Your task to perform on an android device: Show the shopping cart on walmart. Add amazon basics triple a to the cart on walmart Image 0: 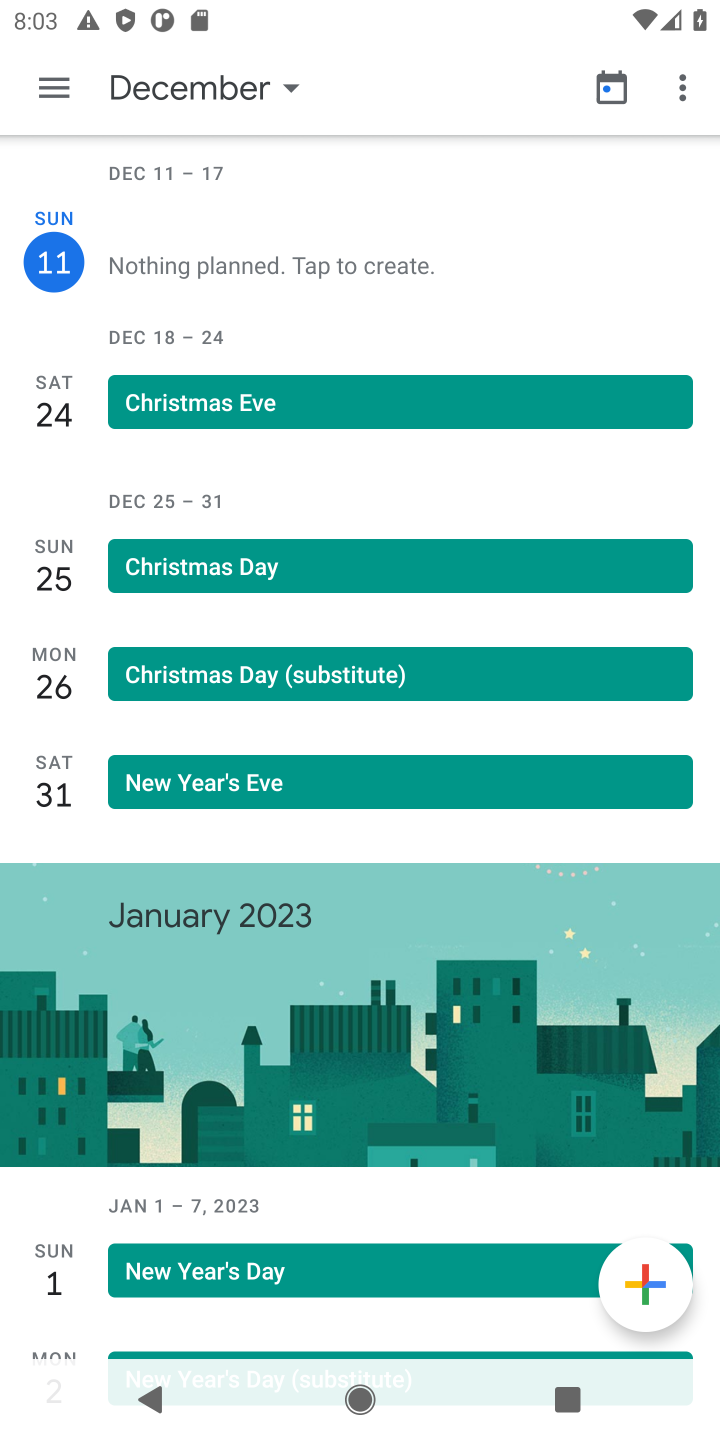
Step 0: press home button
Your task to perform on an android device: Show the shopping cart on walmart. Add amazon basics triple a to the cart on walmart Image 1: 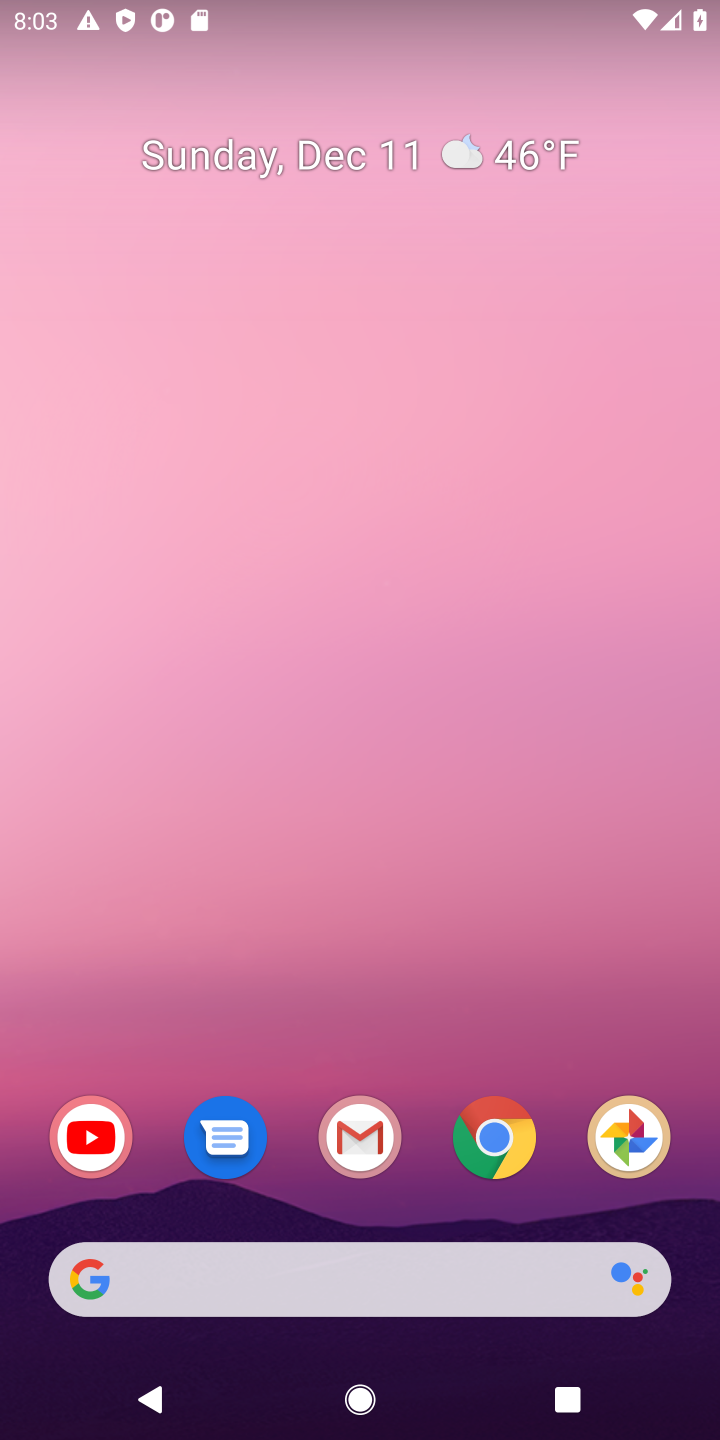
Step 1: click (480, 1155)
Your task to perform on an android device: Show the shopping cart on walmart. Add amazon basics triple a to the cart on walmart Image 2: 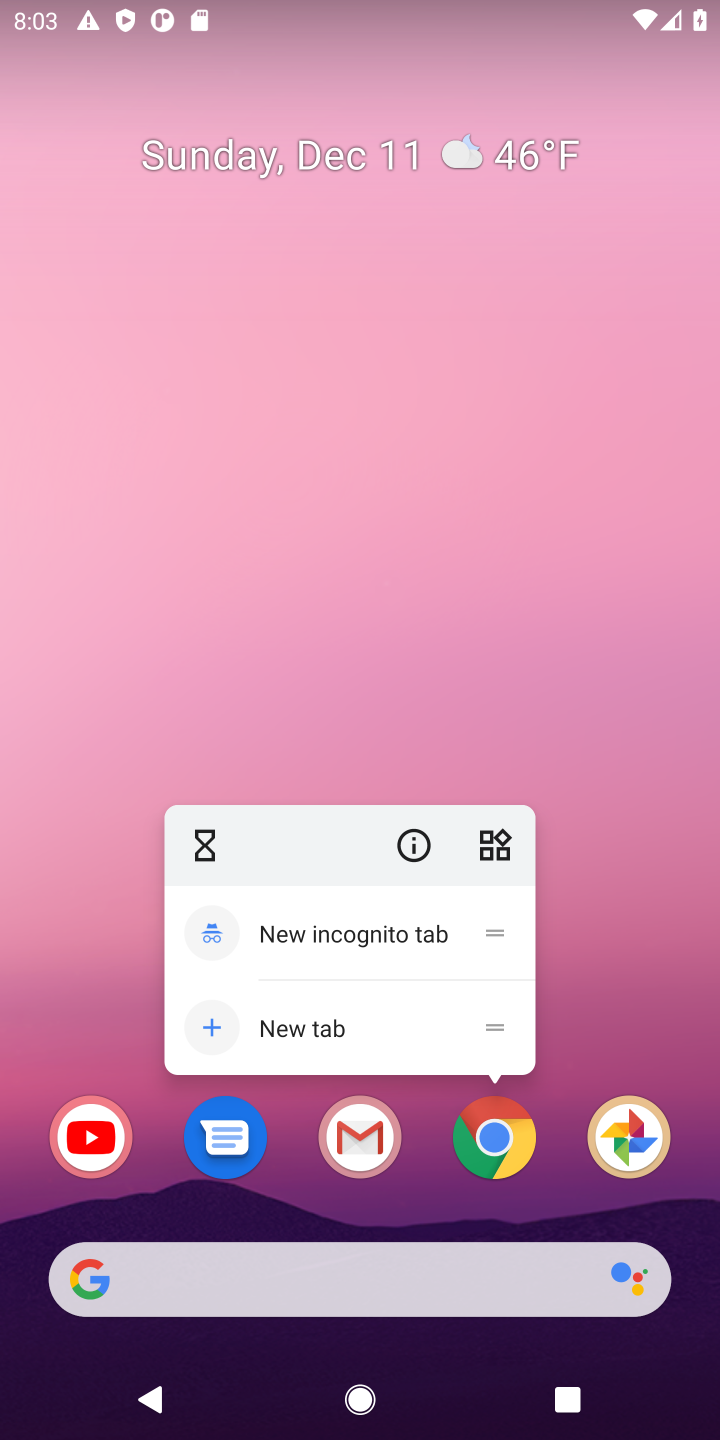
Step 2: click (507, 1127)
Your task to perform on an android device: Show the shopping cart on walmart. Add amazon basics triple a to the cart on walmart Image 3: 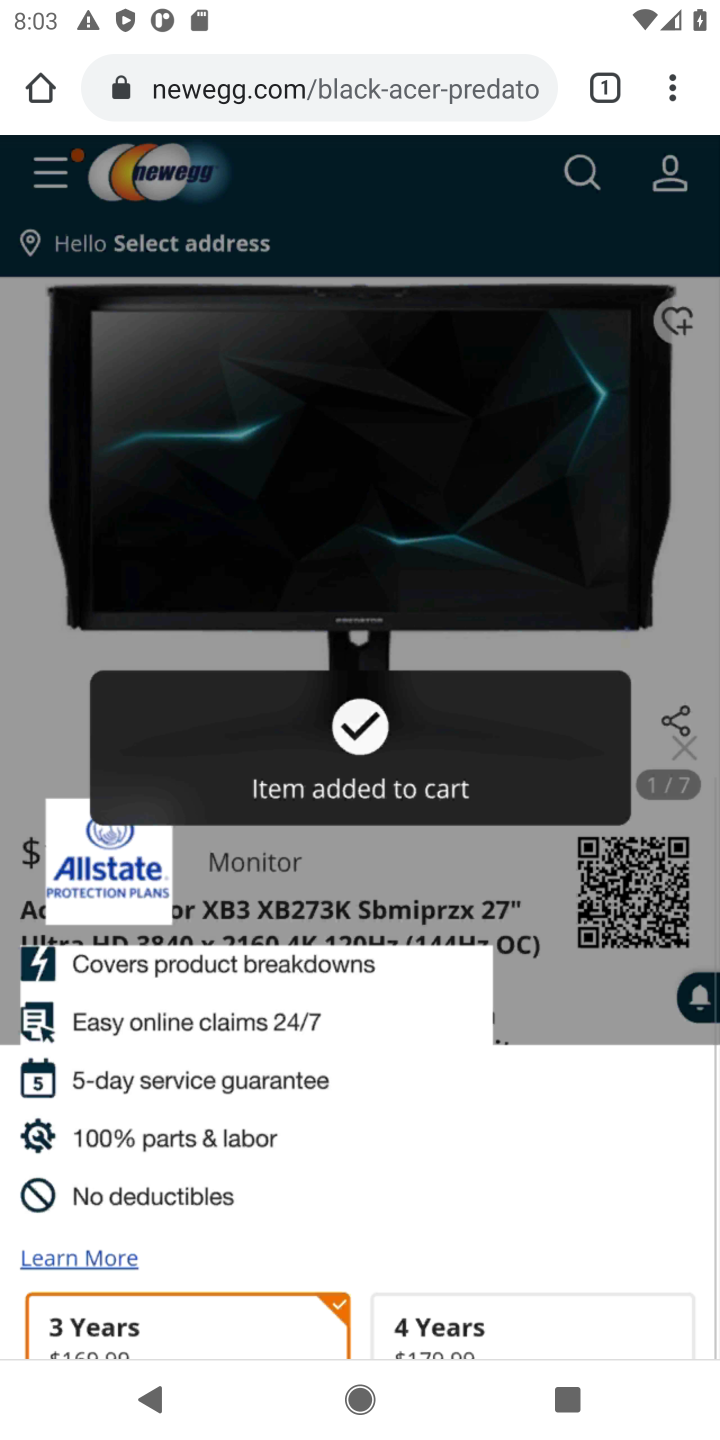
Step 3: click (294, 91)
Your task to perform on an android device: Show the shopping cart on walmart. Add amazon basics triple a to the cart on walmart Image 4: 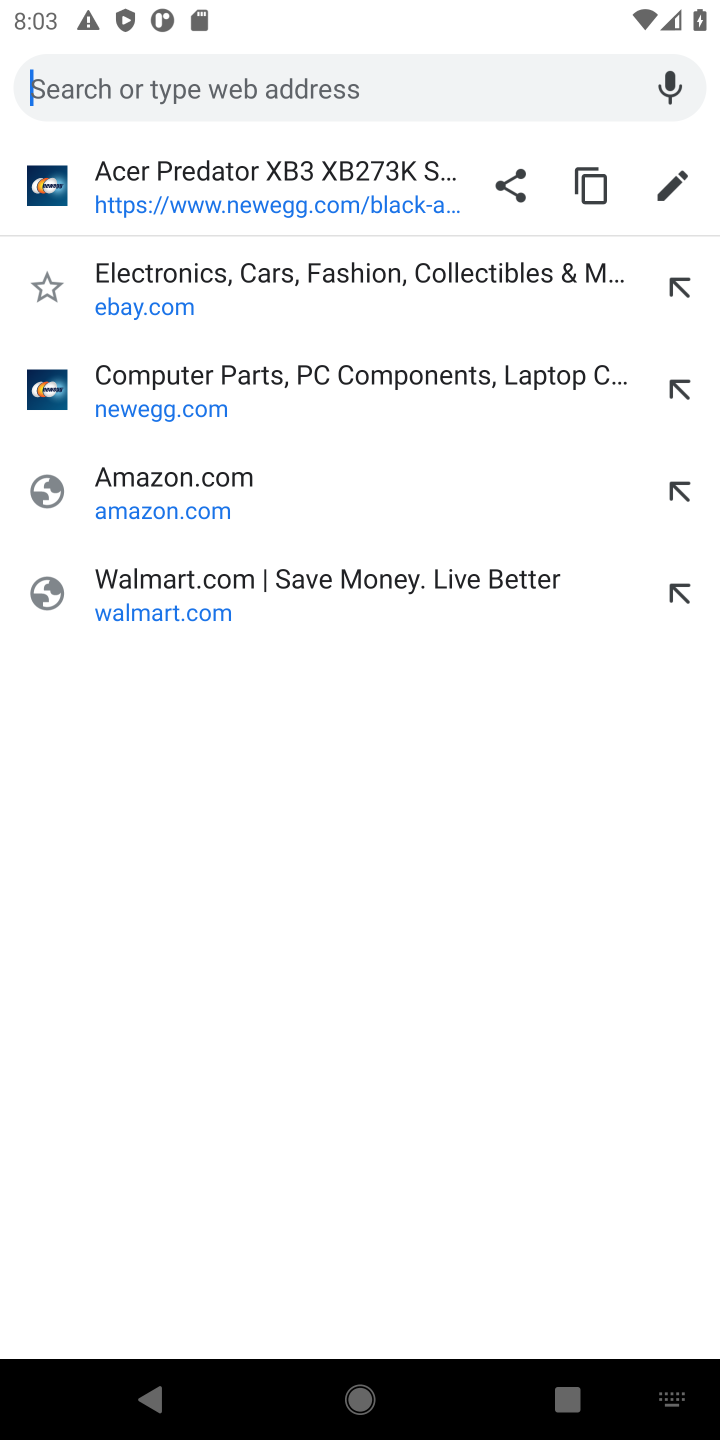
Step 4: click (273, 590)
Your task to perform on an android device: Show the shopping cart on walmart. Add amazon basics triple a to the cart on walmart Image 5: 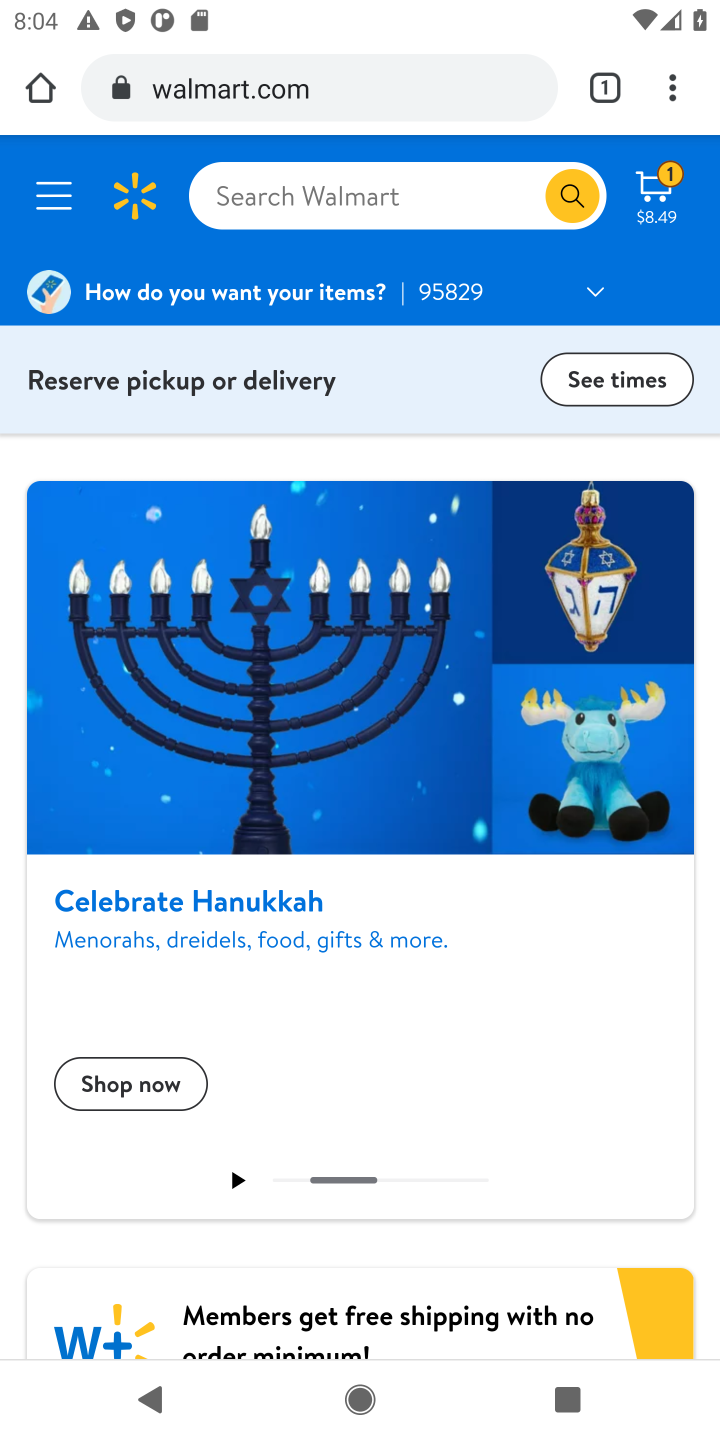
Step 5: click (458, 199)
Your task to perform on an android device: Show the shopping cart on walmart. Add amazon basics triple a to the cart on walmart Image 6: 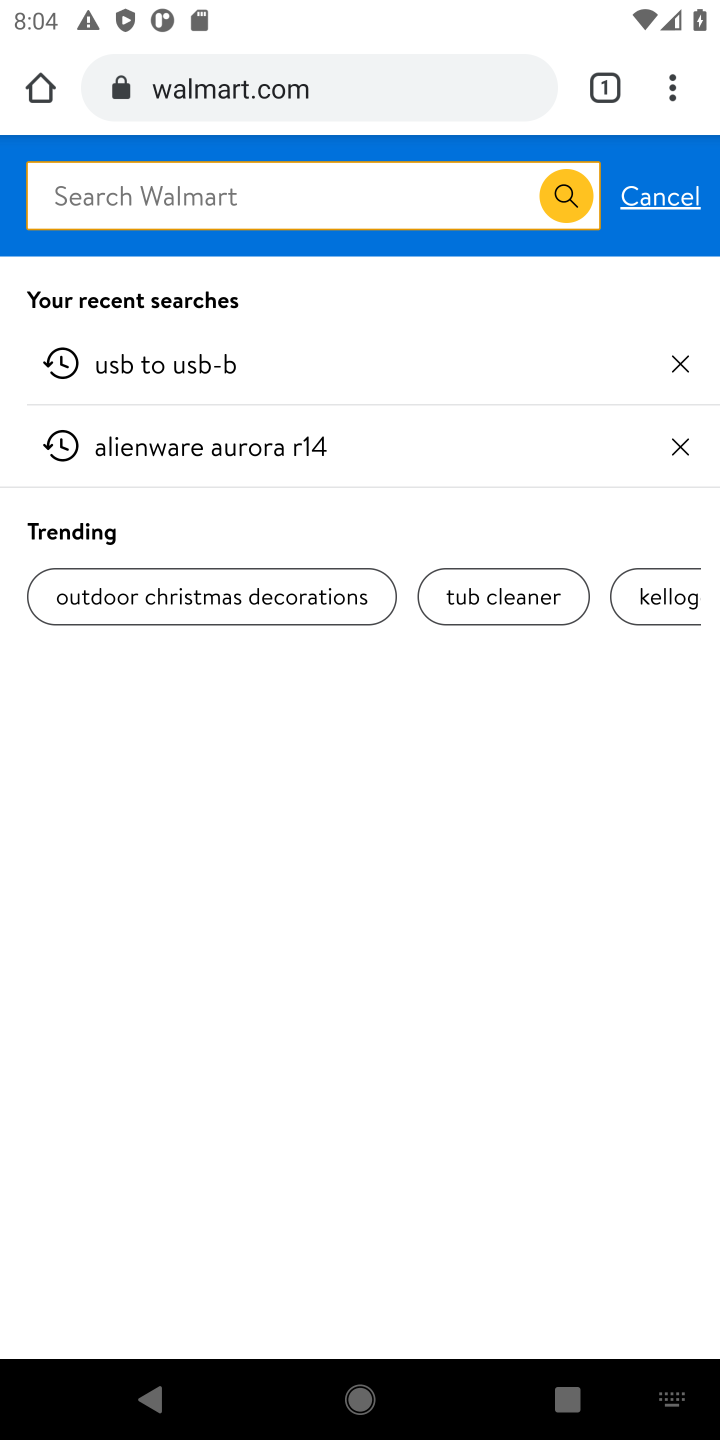
Step 6: type "AMAZON BASICS TRIPLE A"
Your task to perform on an android device: Show the shopping cart on walmart. Add amazon basics triple a to the cart on walmart Image 7: 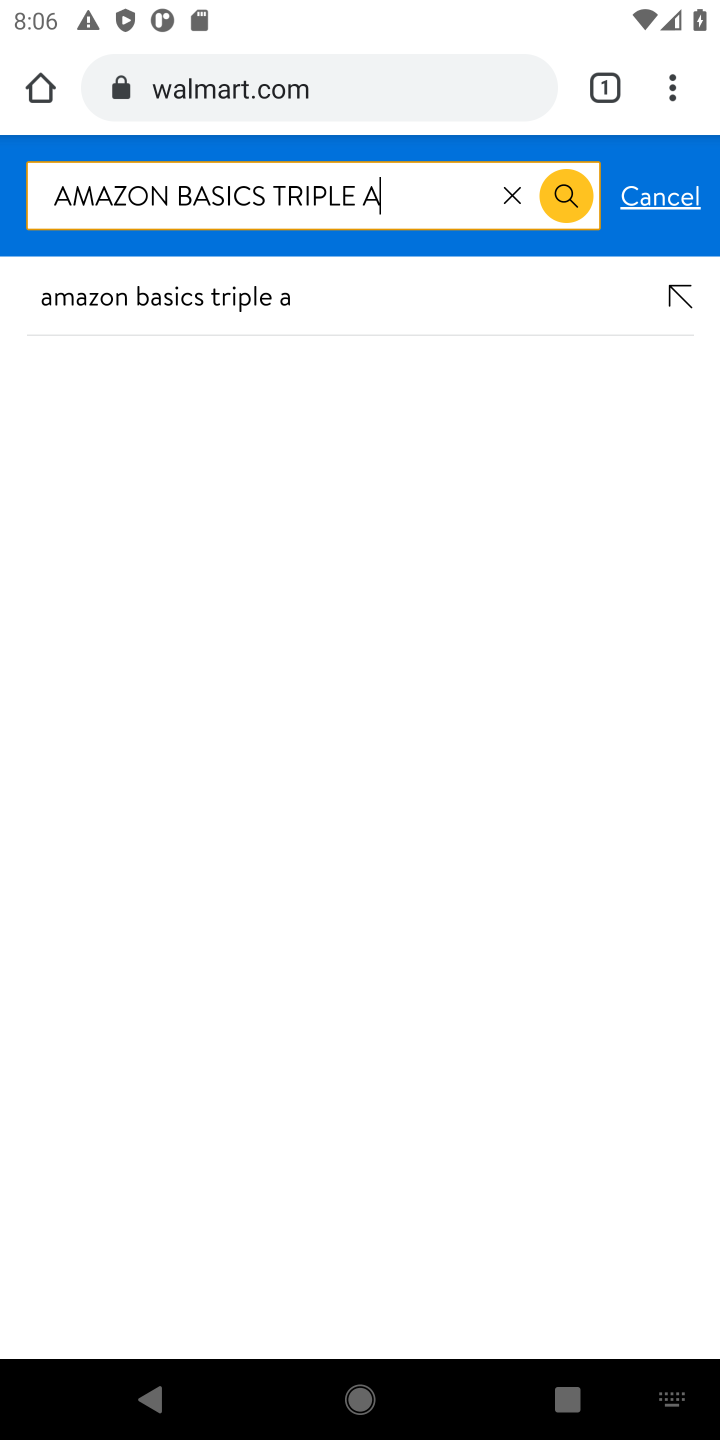
Step 7: click (266, 294)
Your task to perform on an android device: Show the shopping cart on walmart. Add amazon basics triple a to the cart on walmart Image 8: 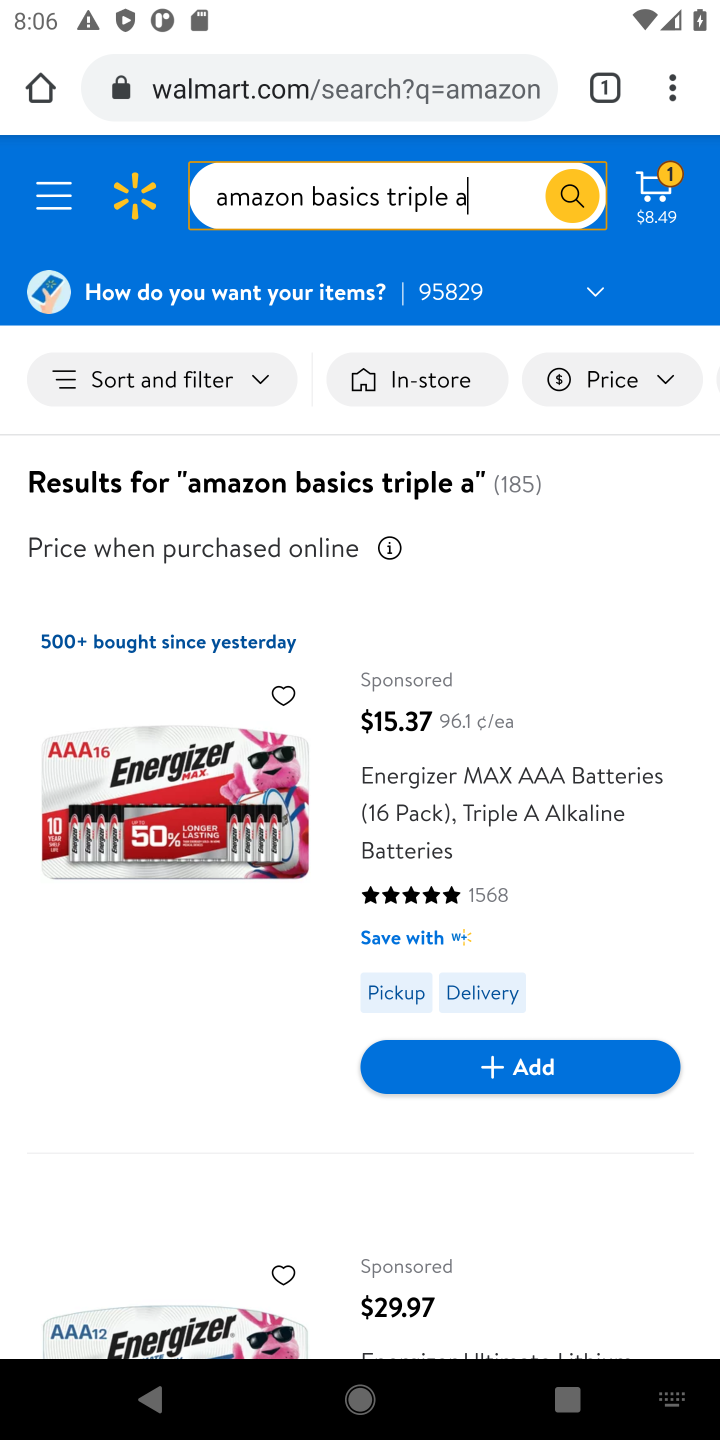
Step 8: click (516, 1070)
Your task to perform on an android device: Show the shopping cart on walmart. Add amazon basics triple a to the cart on walmart Image 9: 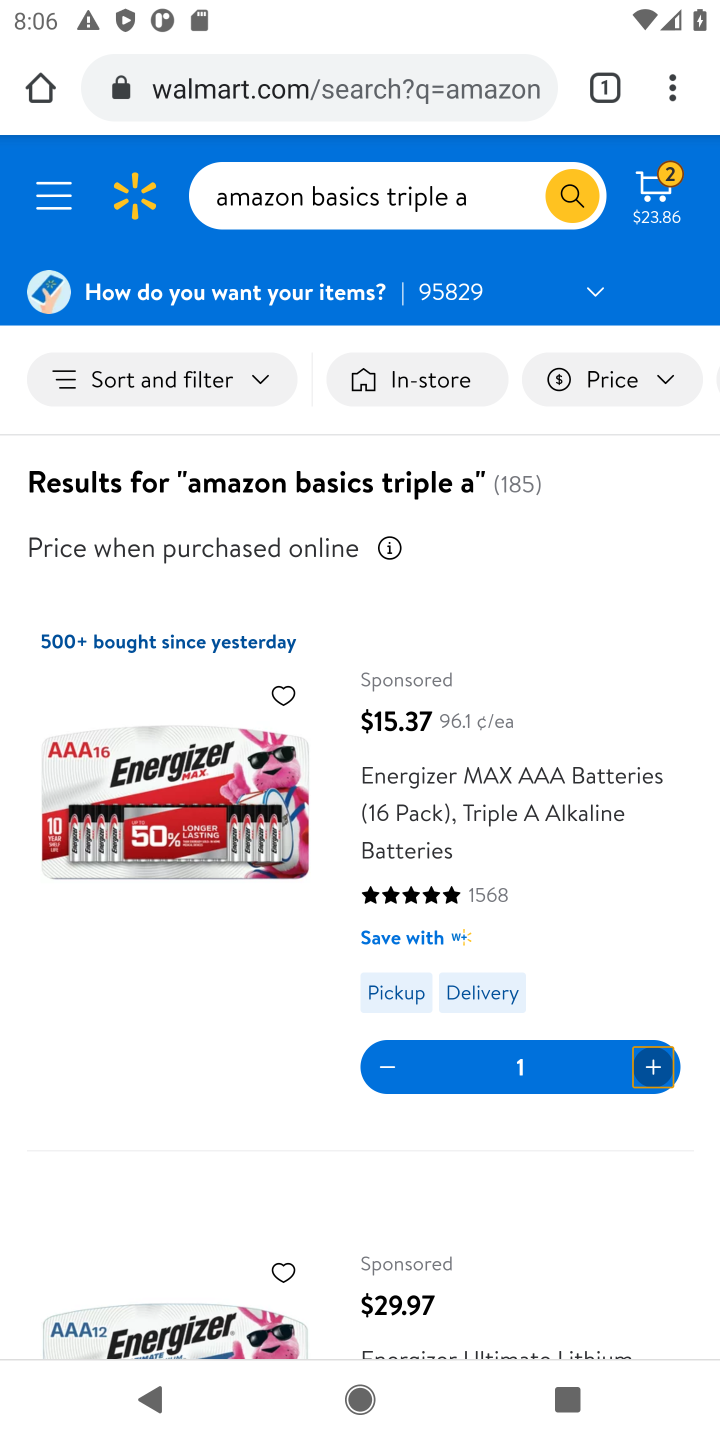
Step 9: task complete